Your task to perform on an android device: Add macbook pro 13 inch to the cart on walmart.com, then select checkout. Image 0: 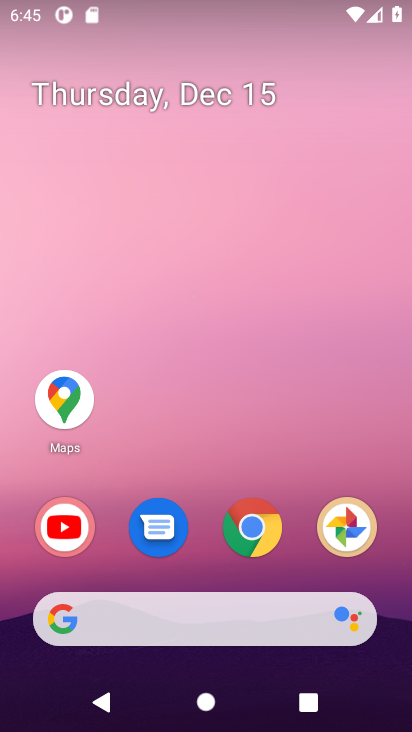
Step 0: click (264, 537)
Your task to perform on an android device: Add macbook pro 13 inch to the cart on walmart.com, then select checkout. Image 1: 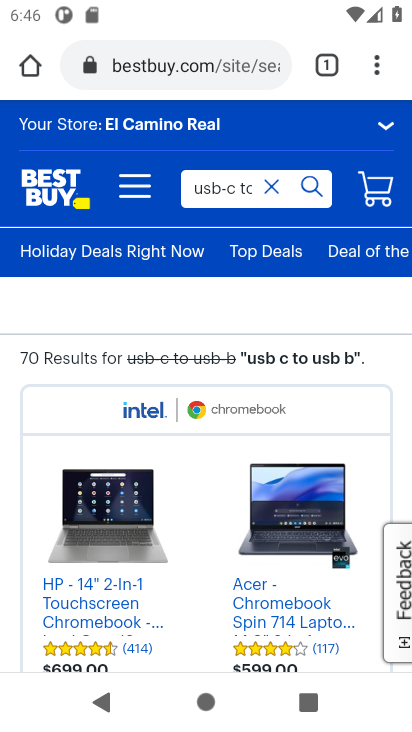
Step 1: click (196, 56)
Your task to perform on an android device: Add macbook pro 13 inch to the cart on walmart.com, then select checkout. Image 2: 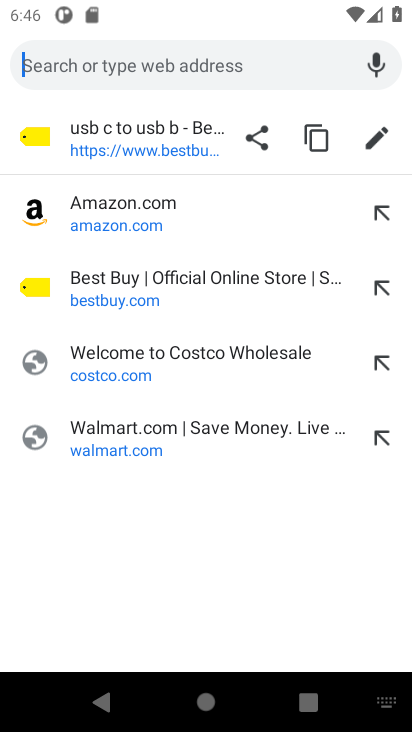
Step 2: type "walmart"
Your task to perform on an android device: Add macbook pro 13 inch to the cart on walmart.com, then select checkout. Image 3: 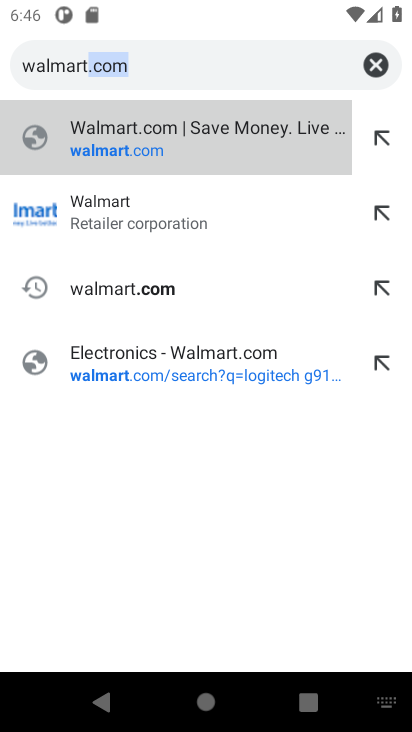
Step 3: click (164, 153)
Your task to perform on an android device: Add macbook pro 13 inch to the cart on walmart.com, then select checkout. Image 4: 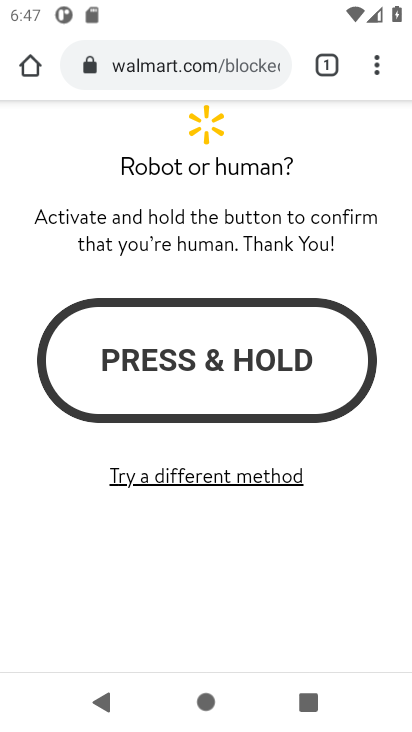
Step 4: click (184, 358)
Your task to perform on an android device: Add macbook pro 13 inch to the cart on walmart.com, then select checkout. Image 5: 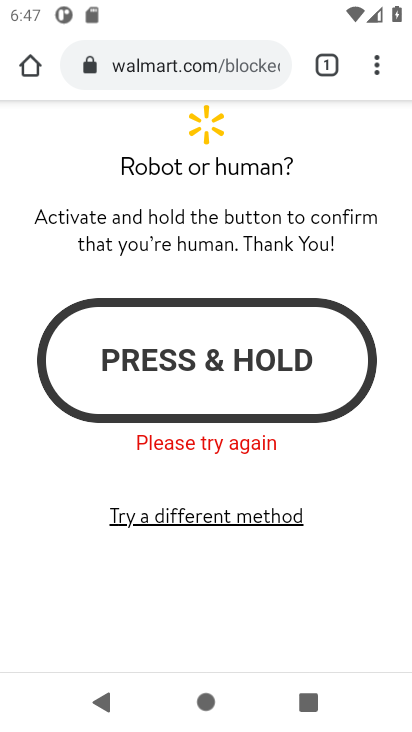
Step 5: click (150, 357)
Your task to perform on an android device: Add macbook pro 13 inch to the cart on walmart.com, then select checkout. Image 6: 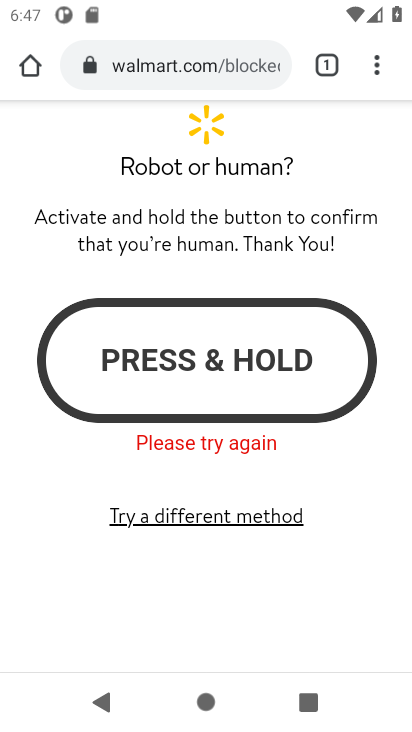
Step 6: click (198, 519)
Your task to perform on an android device: Add macbook pro 13 inch to the cart on walmart.com, then select checkout. Image 7: 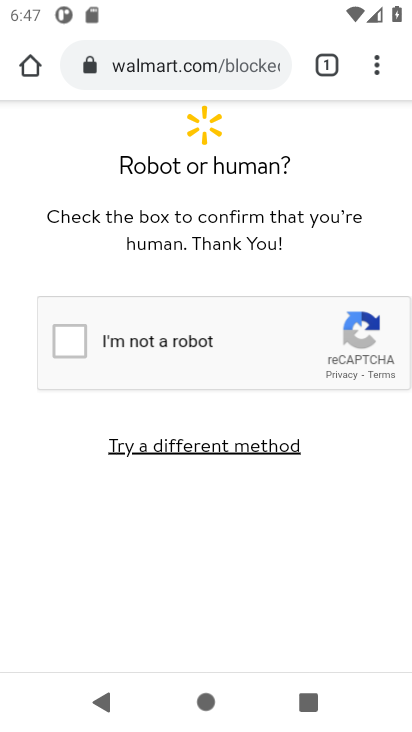
Step 7: click (74, 342)
Your task to perform on an android device: Add macbook pro 13 inch to the cart on walmart.com, then select checkout. Image 8: 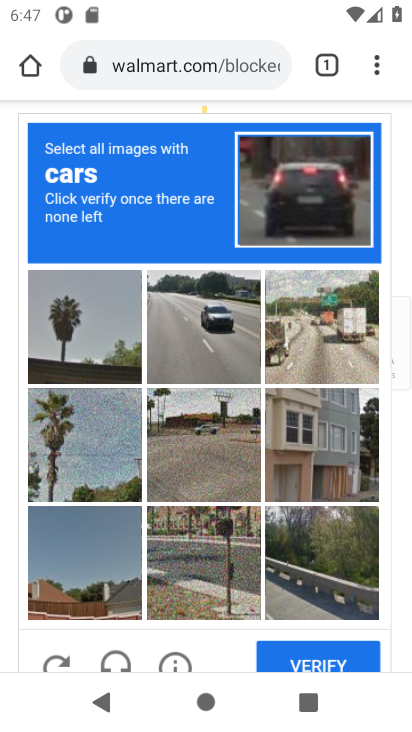
Step 8: click (191, 326)
Your task to perform on an android device: Add macbook pro 13 inch to the cart on walmart.com, then select checkout. Image 9: 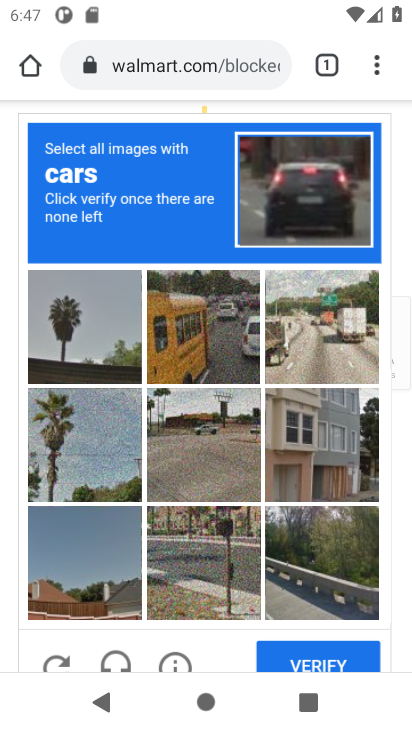
Step 9: click (327, 335)
Your task to perform on an android device: Add macbook pro 13 inch to the cart on walmart.com, then select checkout. Image 10: 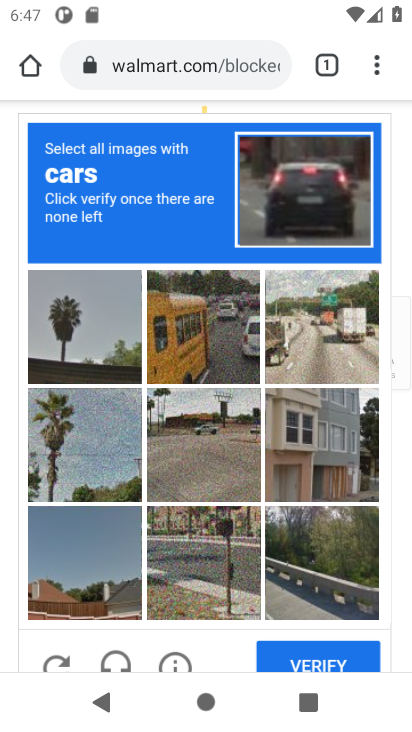
Step 10: click (327, 335)
Your task to perform on an android device: Add macbook pro 13 inch to the cart on walmart.com, then select checkout. Image 11: 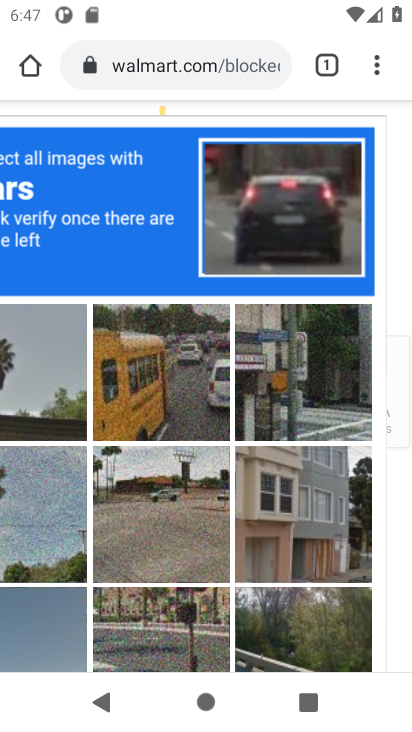
Step 11: click (153, 365)
Your task to perform on an android device: Add macbook pro 13 inch to the cart on walmart.com, then select checkout. Image 12: 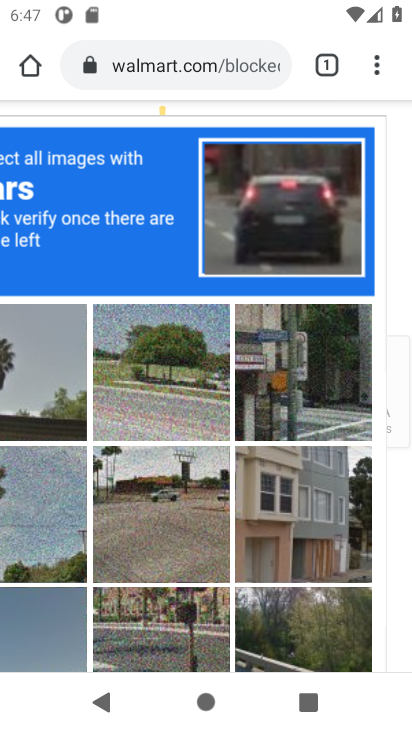
Step 12: click (152, 365)
Your task to perform on an android device: Add macbook pro 13 inch to the cart on walmart.com, then select checkout. Image 13: 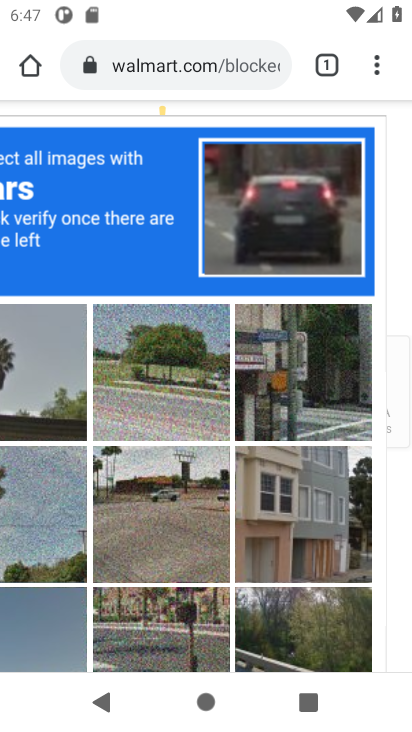
Step 13: click (152, 365)
Your task to perform on an android device: Add macbook pro 13 inch to the cart on walmart.com, then select checkout. Image 14: 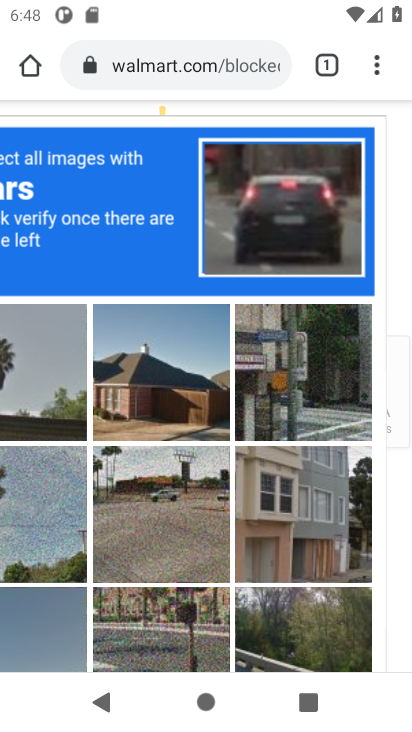
Step 14: click (400, 270)
Your task to perform on an android device: Add macbook pro 13 inch to the cart on walmart.com, then select checkout. Image 15: 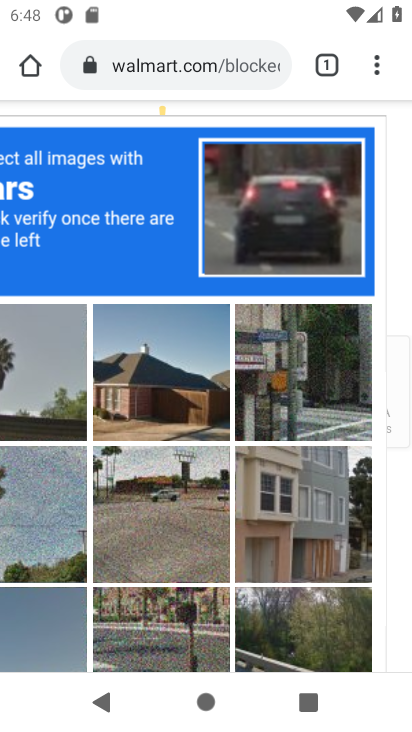
Step 15: click (400, 270)
Your task to perform on an android device: Add macbook pro 13 inch to the cart on walmart.com, then select checkout. Image 16: 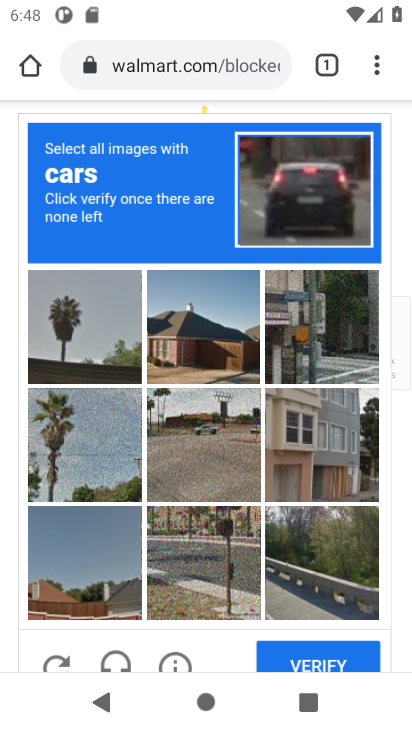
Step 16: click (220, 425)
Your task to perform on an android device: Add macbook pro 13 inch to the cart on walmart.com, then select checkout. Image 17: 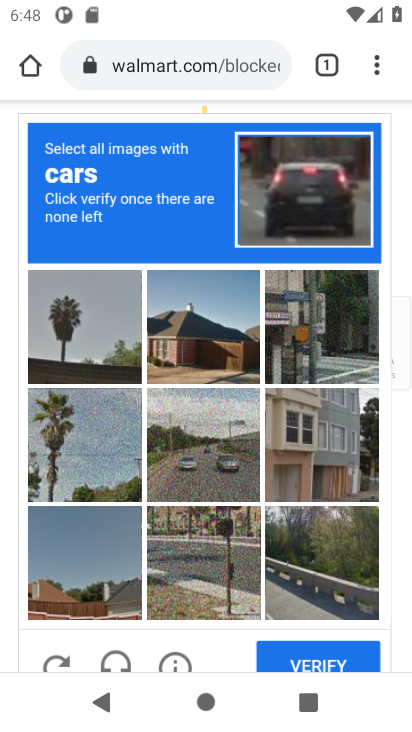
Step 17: click (196, 424)
Your task to perform on an android device: Add macbook pro 13 inch to the cart on walmart.com, then select checkout. Image 18: 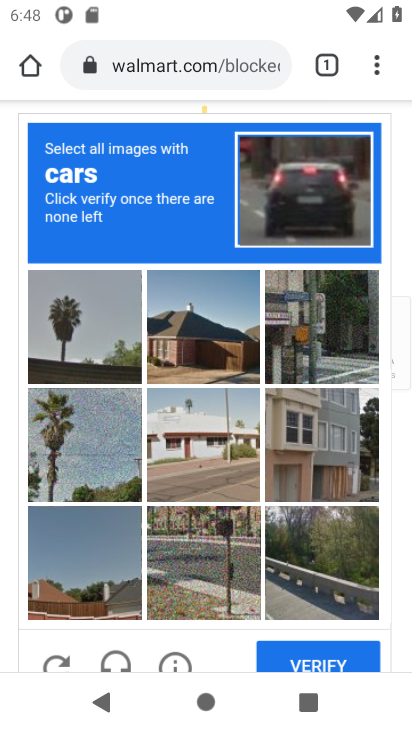
Step 18: click (304, 658)
Your task to perform on an android device: Add macbook pro 13 inch to the cart on walmart.com, then select checkout. Image 19: 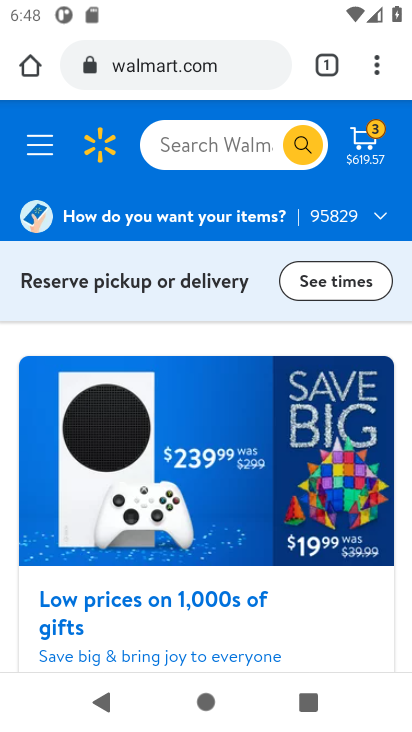
Step 19: click (215, 143)
Your task to perform on an android device: Add macbook pro 13 inch to the cart on walmart.com, then select checkout. Image 20: 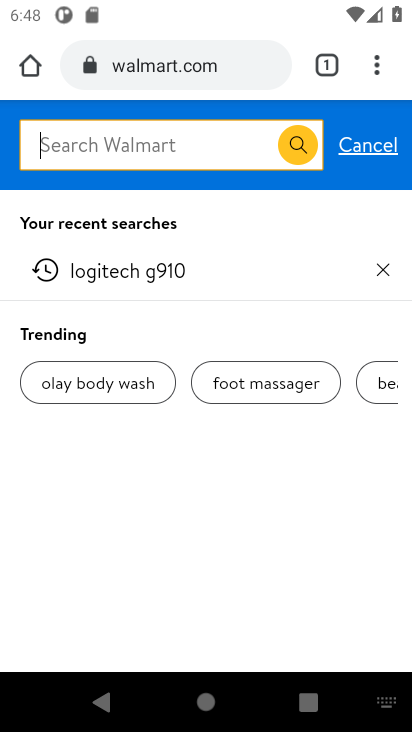
Step 20: type "macbook pro 13"
Your task to perform on an android device: Add macbook pro 13 inch to the cart on walmart.com, then select checkout. Image 21: 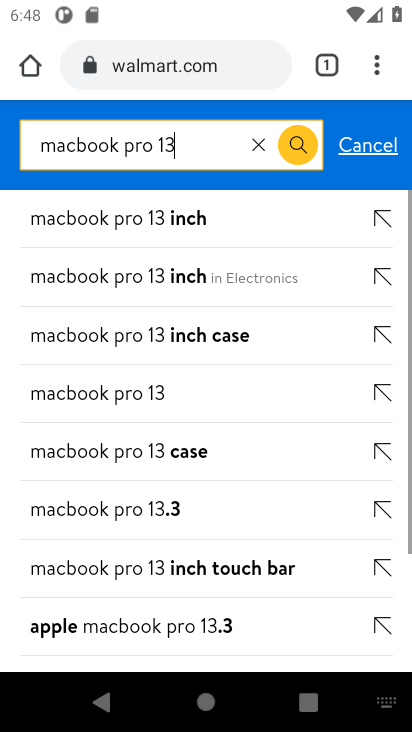
Step 21: click (159, 227)
Your task to perform on an android device: Add macbook pro 13 inch to the cart on walmart.com, then select checkout. Image 22: 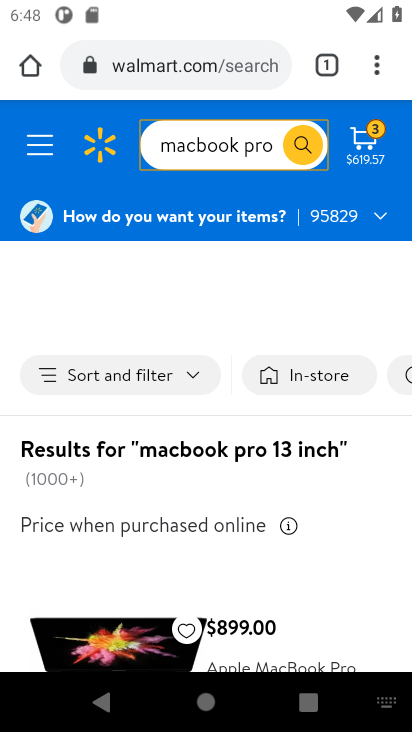
Step 22: drag from (138, 552) to (182, 297)
Your task to perform on an android device: Add macbook pro 13 inch to the cart on walmart.com, then select checkout. Image 23: 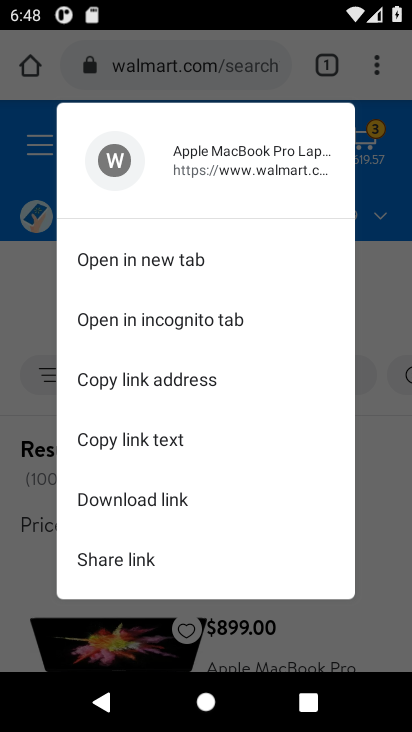
Step 23: click (403, 518)
Your task to perform on an android device: Add macbook pro 13 inch to the cart on walmart.com, then select checkout. Image 24: 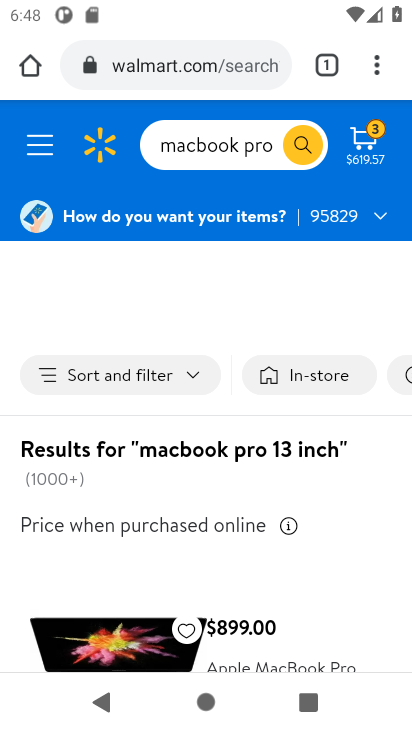
Step 24: drag from (305, 632) to (296, 379)
Your task to perform on an android device: Add macbook pro 13 inch to the cart on walmart.com, then select checkout. Image 25: 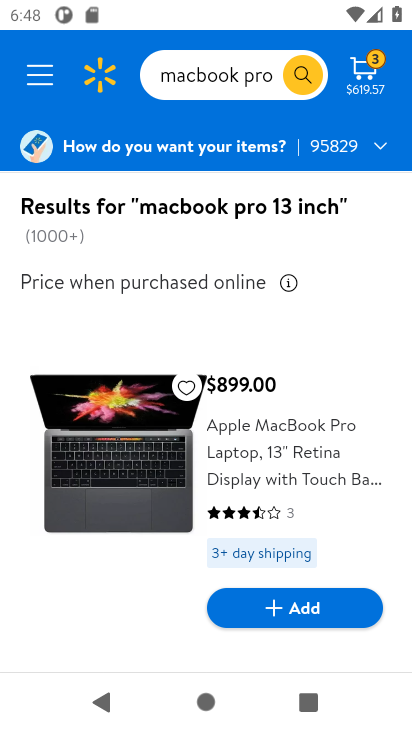
Step 25: click (257, 615)
Your task to perform on an android device: Add macbook pro 13 inch to the cart on walmart.com, then select checkout. Image 26: 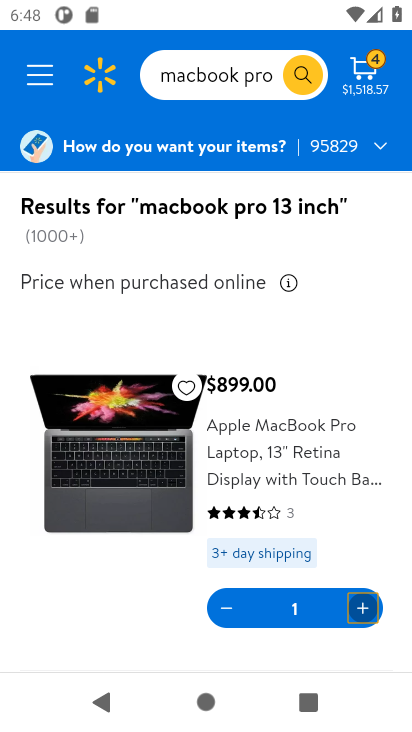
Step 26: task complete